Your task to perform on an android device: turn notification dots on Image 0: 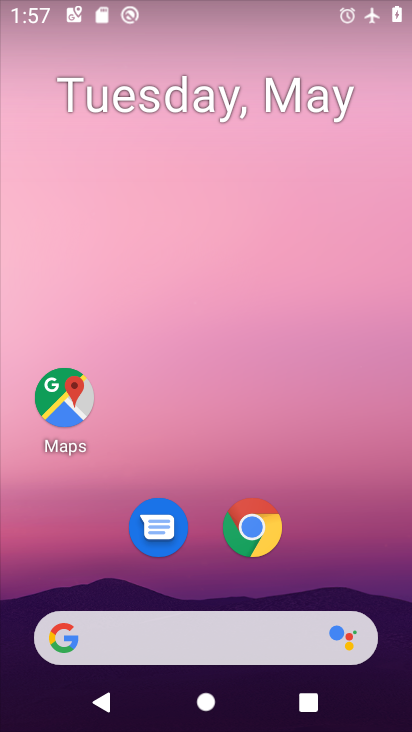
Step 0: drag from (233, 667) to (312, 71)
Your task to perform on an android device: turn notification dots on Image 1: 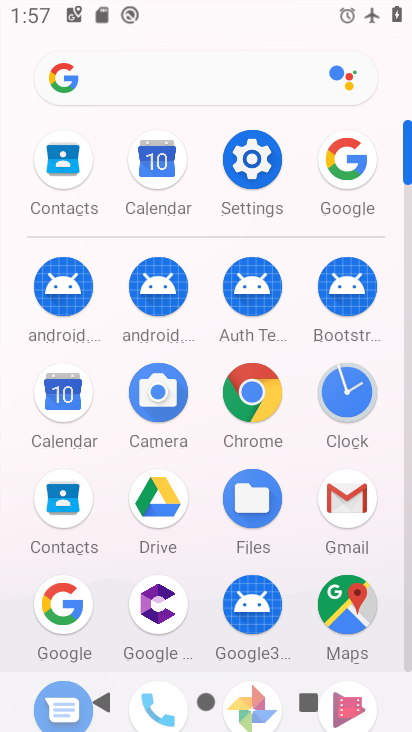
Step 1: click (262, 169)
Your task to perform on an android device: turn notification dots on Image 2: 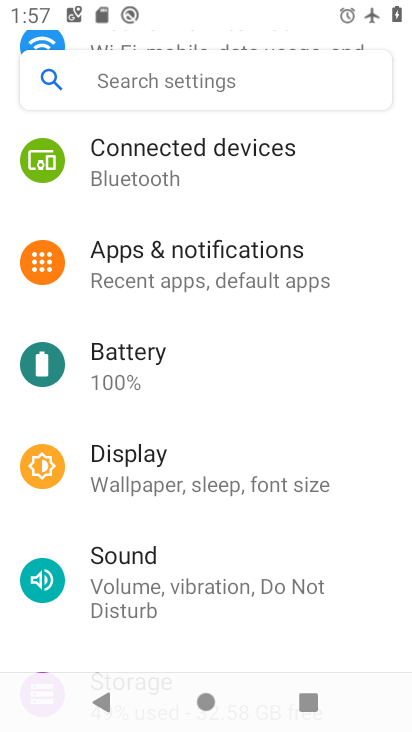
Step 2: click (148, 272)
Your task to perform on an android device: turn notification dots on Image 3: 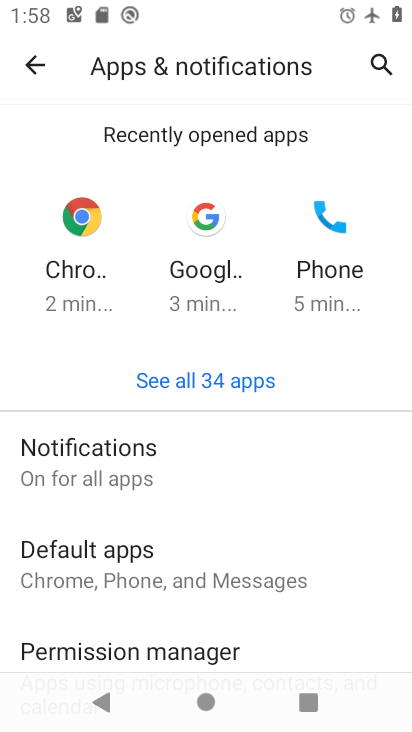
Step 3: click (136, 455)
Your task to perform on an android device: turn notification dots on Image 4: 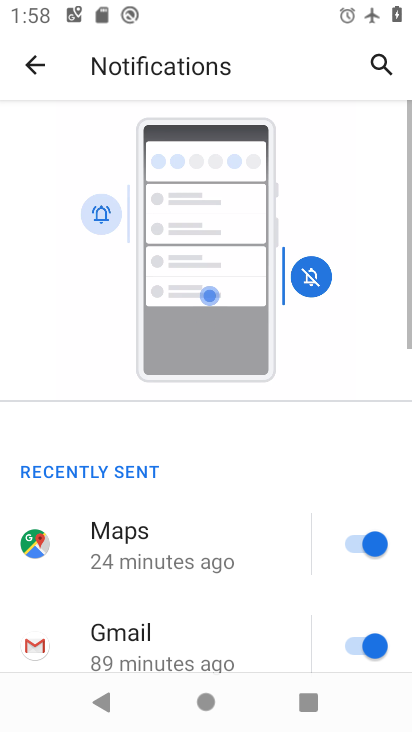
Step 4: drag from (245, 575) to (359, 39)
Your task to perform on an android device: turn notification dots on Image 5: 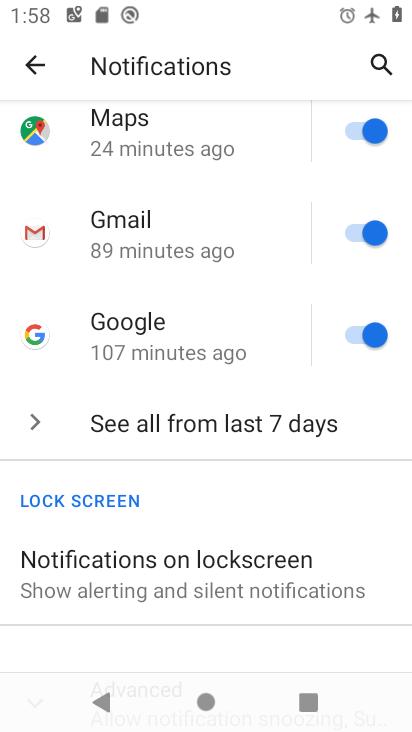
Step 5: drag from (321, 558) to (400, 225)
Your task to perform on an android device: turn notification dots on Image 6: 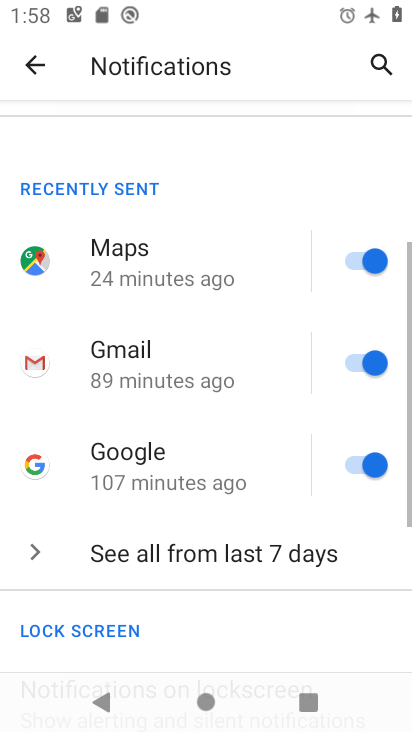
Step 6: drag from (189, 650) to (187, 63)
Your task to perform on an android device: turn notification dots on Image 7: 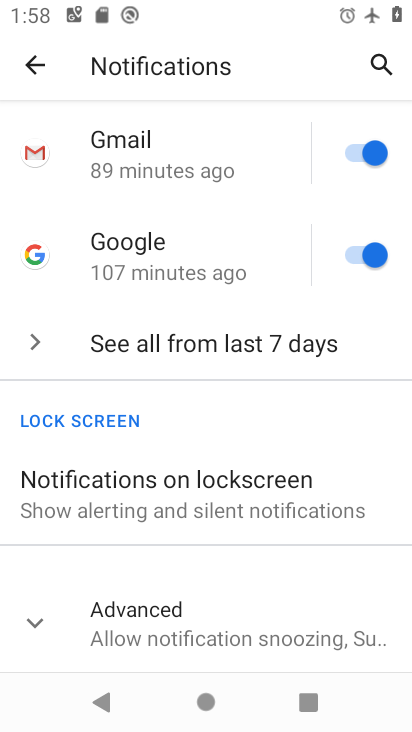
Step 7: click (241, 640)
Your task to perform on an android device: turn notification dots on Image 8: 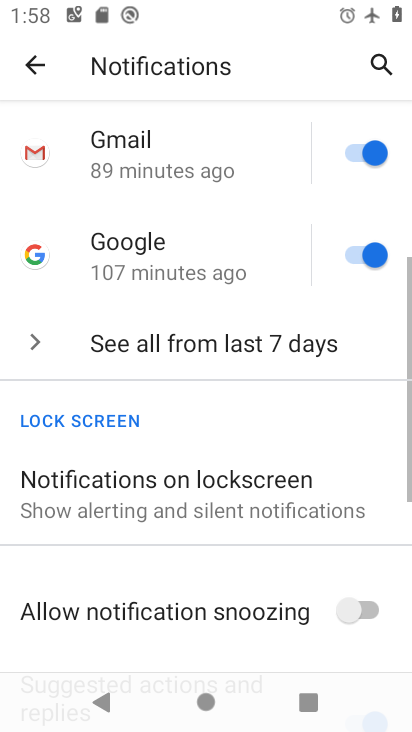
Step 8: task complete